Your task to perform on an android device: Open ESPN.com Image 0: 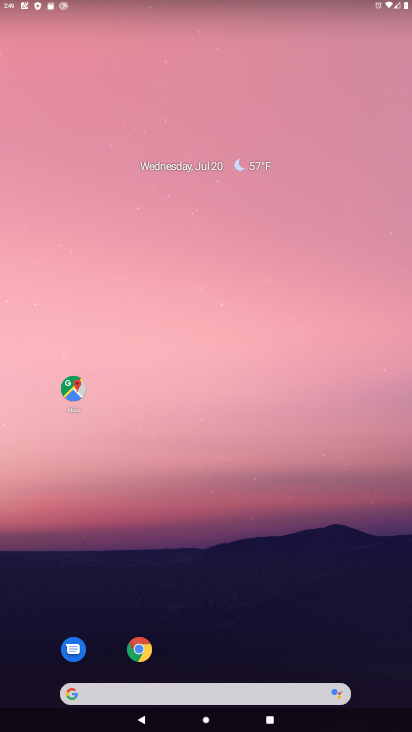
Step 0: click (141, 651)
Your task to perform on an android device: Open ESPN.com Image 1: 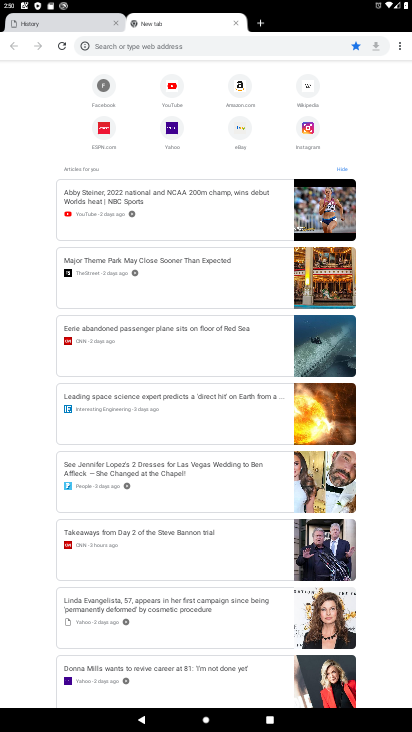
Step 1: click (110, 127)
Your task to perform on an android device: Open ESPN.com Image 2: 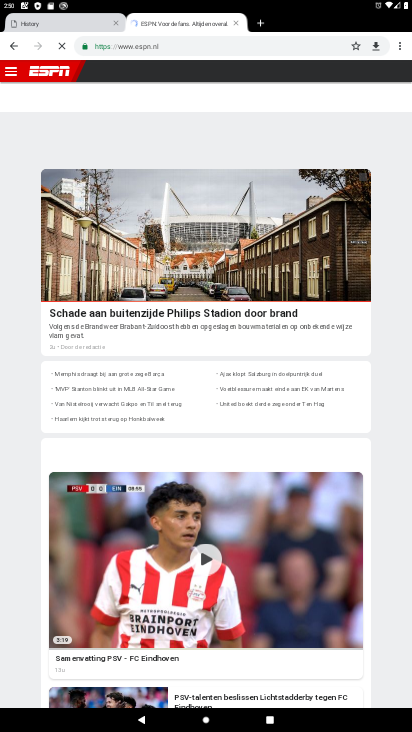
Step 2: task complete